Your task to perform on an android device: delete browsing data in the chrome app Image 0: 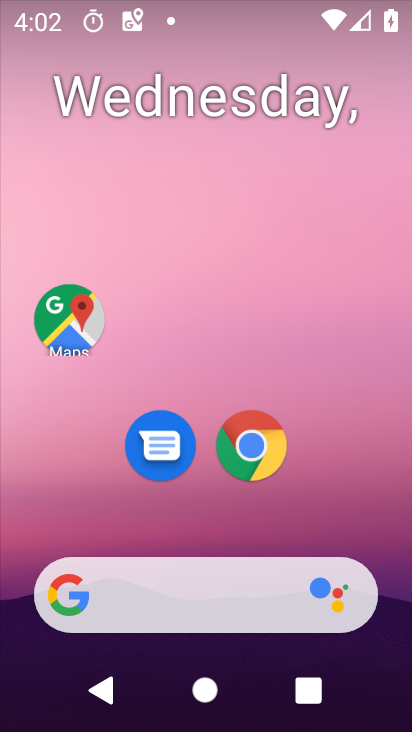
Step 0: click (256, 431)
Your task to perform on an android device: delete browsing data in the chrome app Image 1: 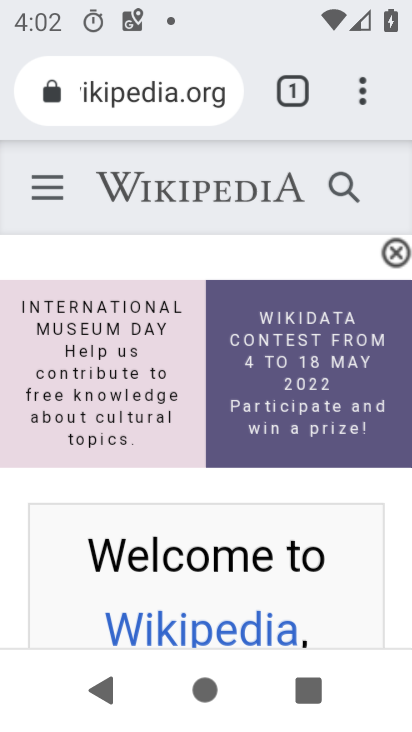
Step 1: click (354, 84)
Your task to perform on an android device: delete browsing data in the chrome app Image 2: 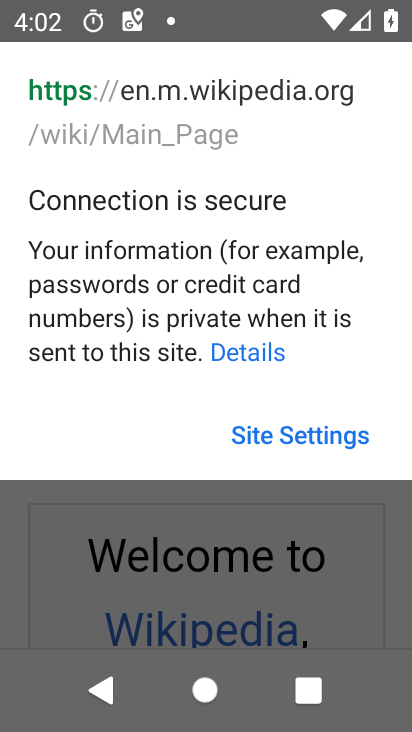
Step 2: click (153, 495)
Your task to perform on an android device: delete browsing data in the chrome app Image 3: 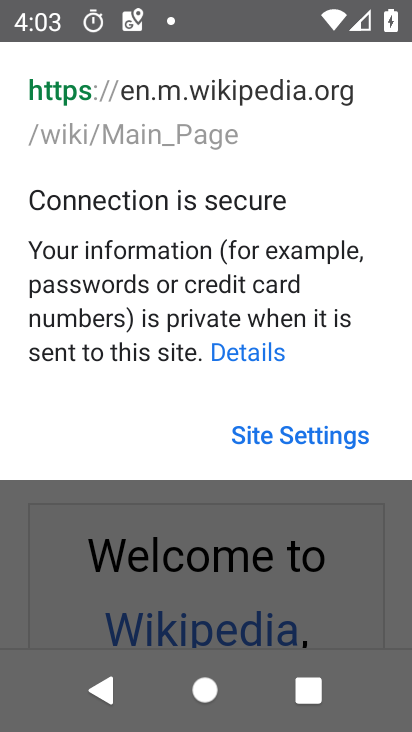
Step 3: click (153, 495)
Your task to perform on an android device: delete browsing data in the chrome app Image 4: 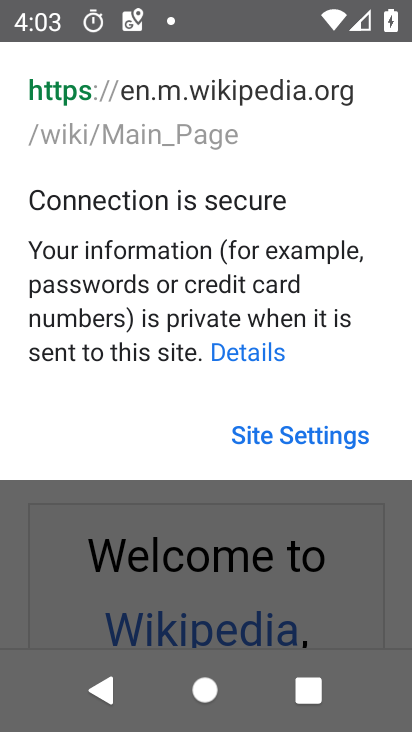
Step 4: click (153, 495)
Your task to perform on an android device: delete browsing data in the chrome app Image 5: 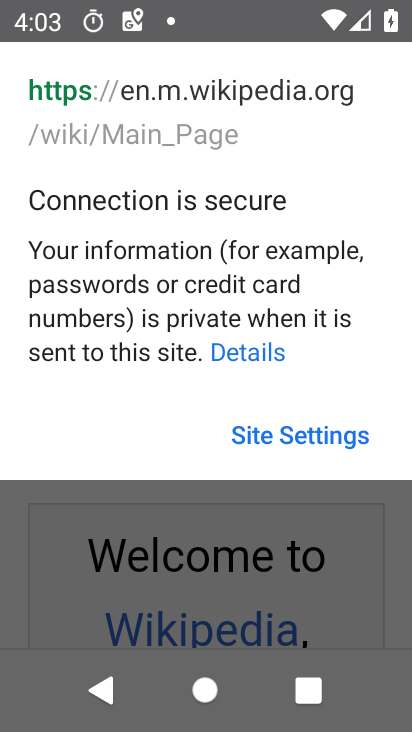
Step 5: click (153, 495)
Your task to perform on an android device: delete browsing data in the chrome app Image 6: 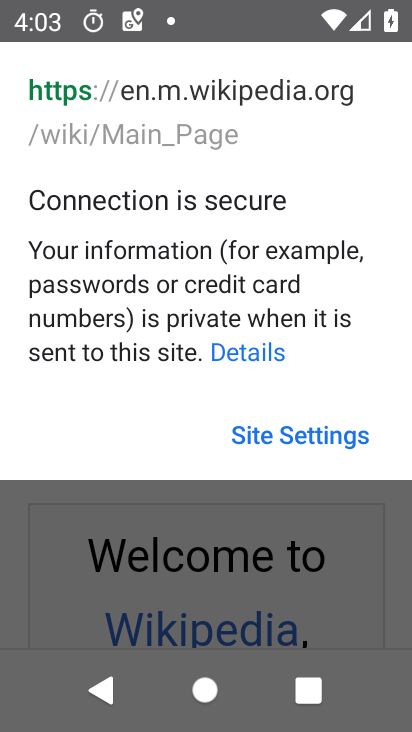
Step 6: click (153, 495)
Your task to perform on an android device: delete browsing data in the chrome app Image 7: 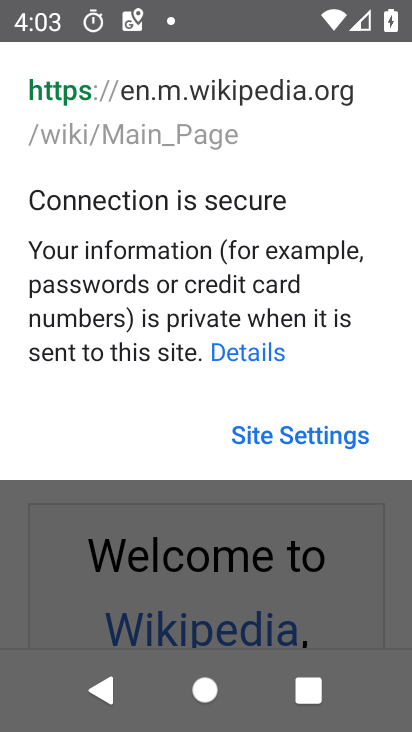
Step 7: click (294, 492)
Your task to perform on an android device: delete browsing data in the chrome app Image 8: 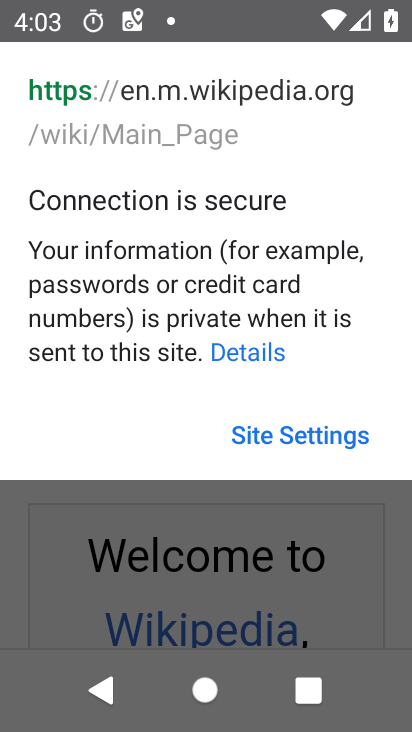
Step 8: click (294, 492)
Your task to perform on an android device: delete browsing data in the chrome app Image 9: 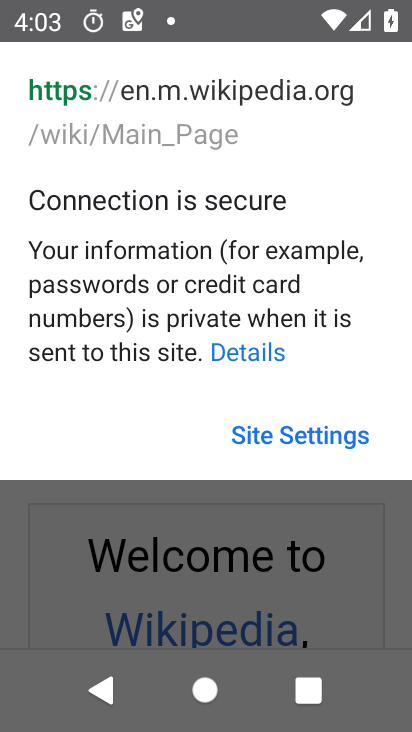
Step 9: click (294, 492)
Your task to perform on an android device: delete browsing data in the chrome app Image 10: 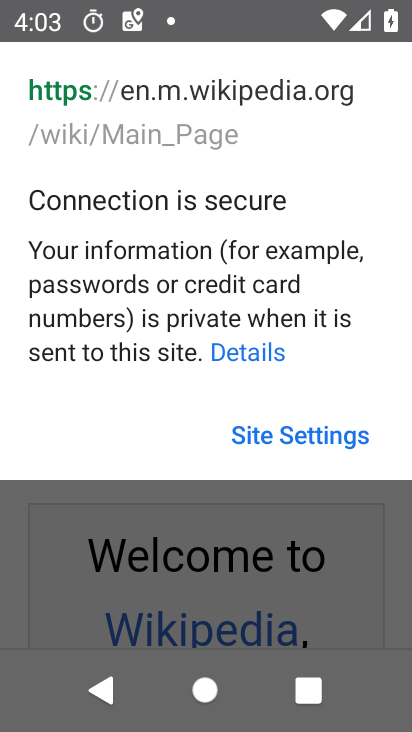
Step 10: click (294, 492)
Your task to perform on an android device: delete browsing data in the chrome app Image 11: 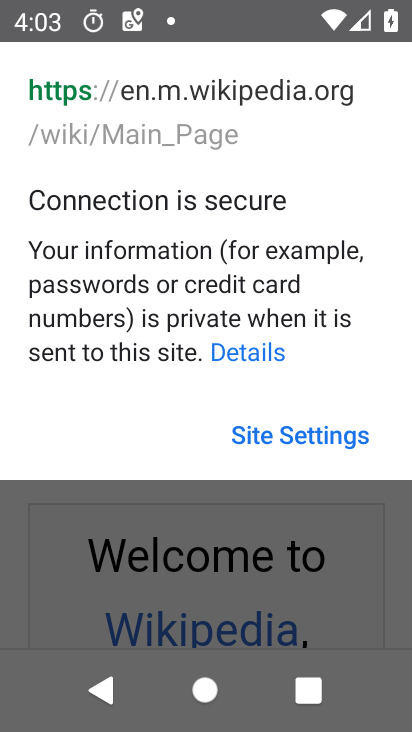
Step 11: click (264, 512)
Your task to perform on an android device: delete browsing data in the chrome app Image 12: 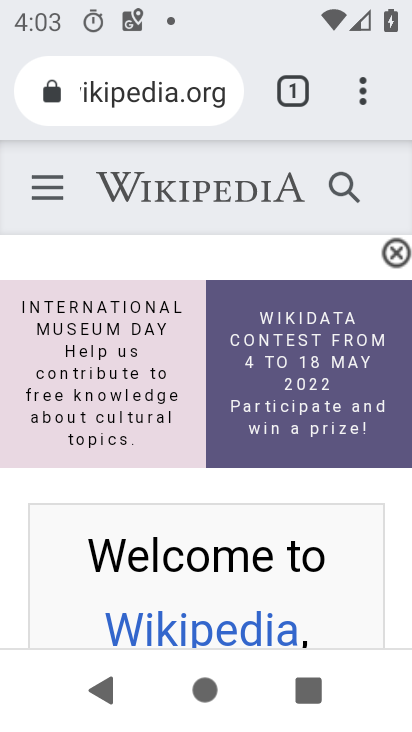
Step 12: click (354, 84)
Your task to perform on an android device: delete browsing data in the chrome app Image 13: 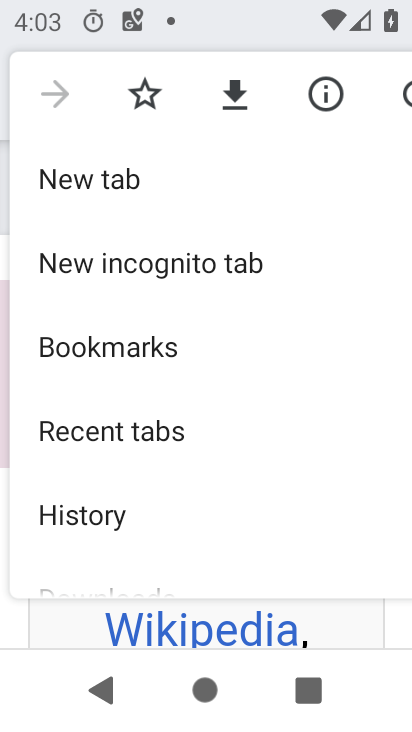
Step 13: drag from (287, 451) to (264, 67)
Your task to perform on an android device: delete browsing data in the chrome app Image 14: 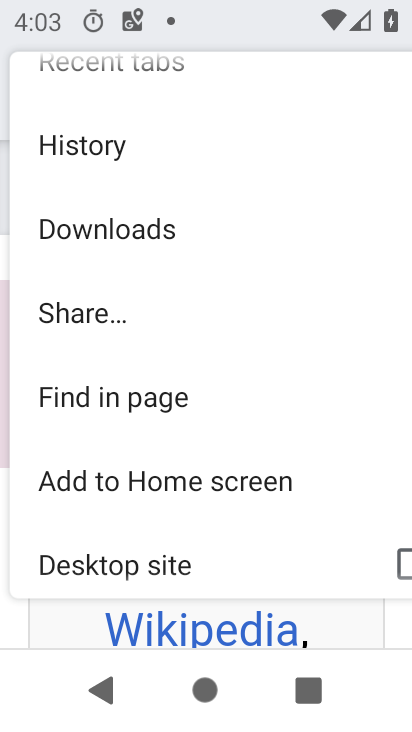
Step 14: drag from (188, 479) to (212, 161)
Your task to perform on an android device: delete browsing data in the chrome app Image 15: 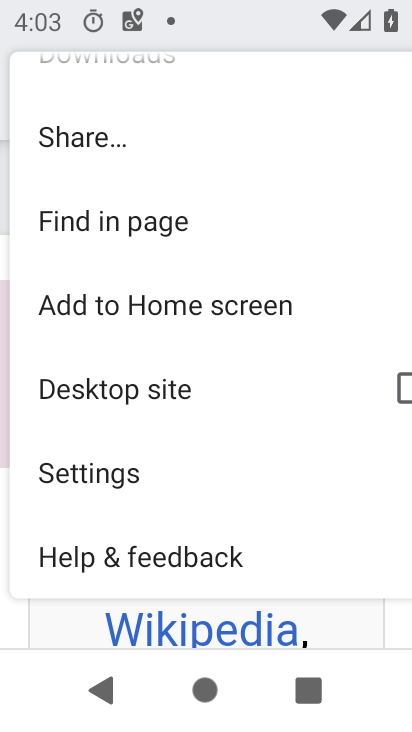
Step 15: click (83, 489)
Your task to perform on an android device: delete browsing data in the chrome app Image 16: 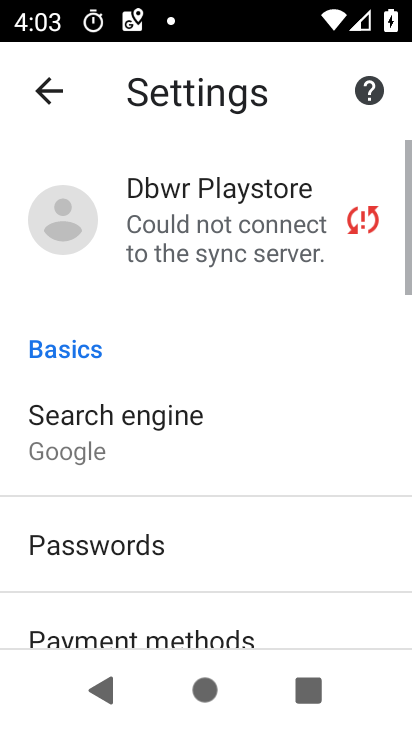
Step 16: drag from (153, 567) to (170, 36)
Your task to perform on an android device: delete browsing data in the chrome app Image 17: 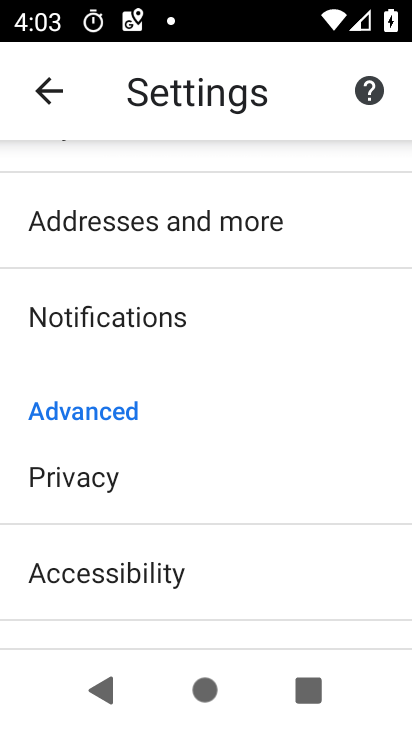
Step 17: click (128, 468)
Your task to perform on an android device: delete browsing data in the chrome app Image 18: 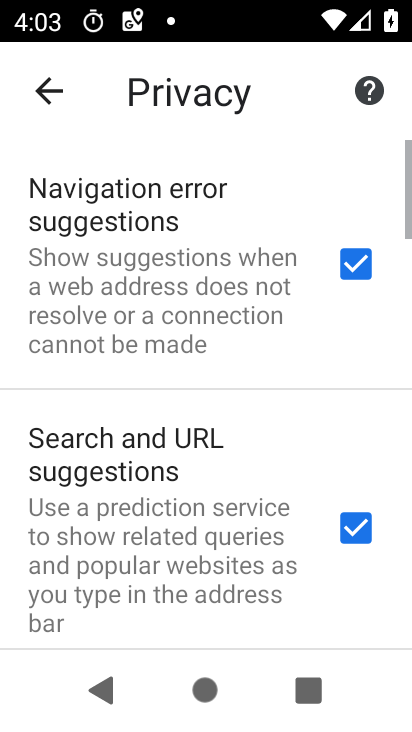
Step 18: drag from (310, 524) to (237, 89)
Your task to perform on an android device: delete browsing data in the chrome app Image 19: 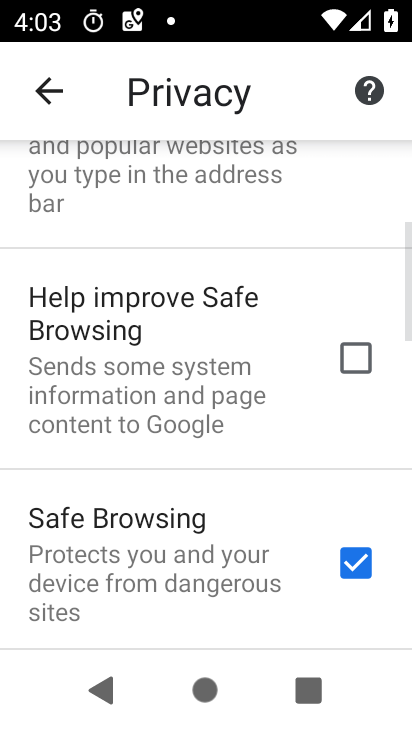
Step 19: drag from (214, 619) to (221, 160)
Your task to perform on an android device: delete browsing data in the chrome app Image 20: 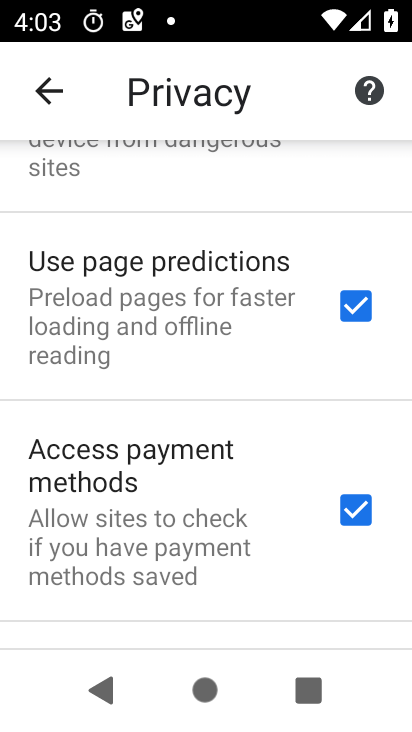
Step 20: drag from (211, 511) to (215, 54)
Your task to perform on an android device: delete browsing data in the chrome app Image 21: 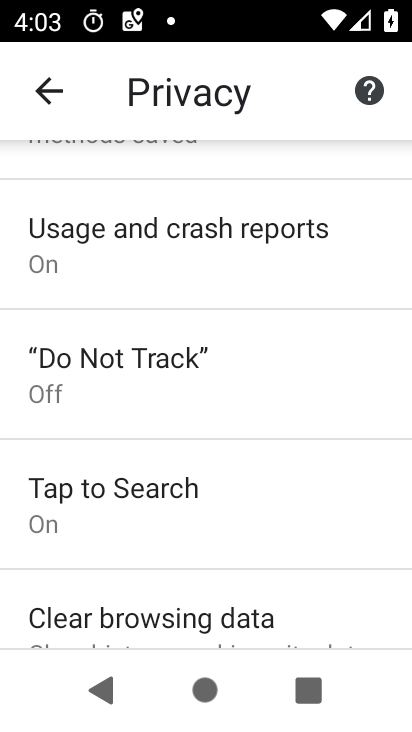
Step 21: drag from (209, 596) to (212, 255)
Your task to perform on an android device: delete browsing data in the chrome app Image 22: 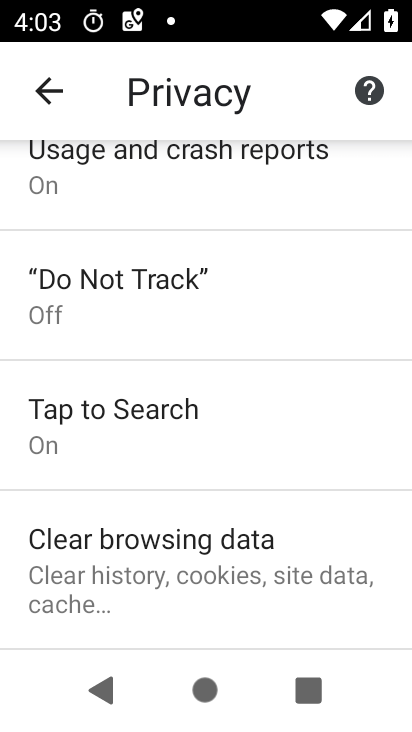
Step 22: click (182, 564)
Your task to perform on an android device: delete browsing data in the chrome app Image 23: 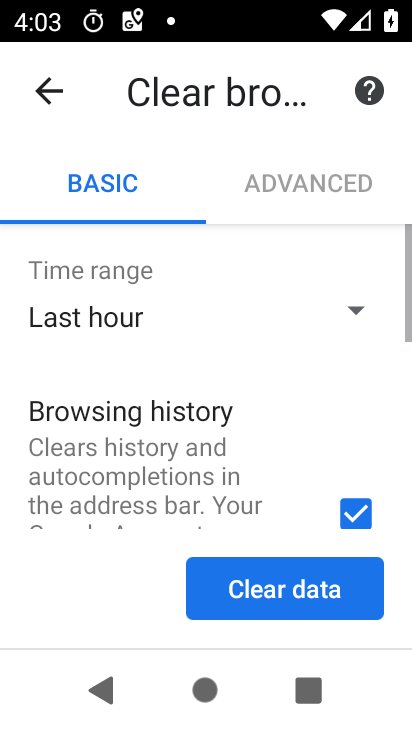
Step 23: drag from (334, 444) to (333, 206)
Your task to perform on an android device: delete browsing data in the chrome app Image 24: 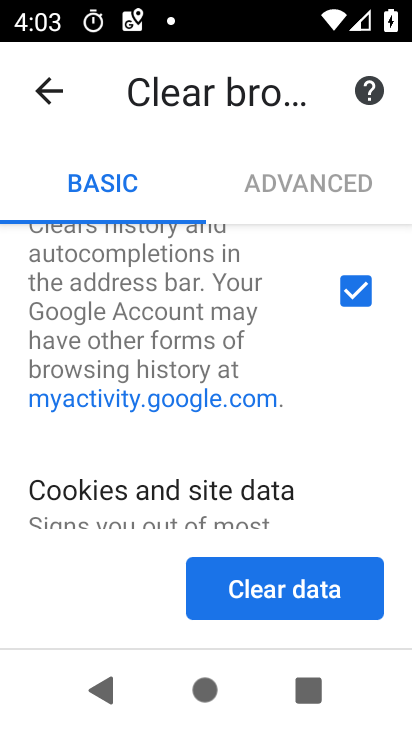
Step 24: click (349, 301)
Your task to perform on an android device: delete browsing data in the chrome app Image 25: 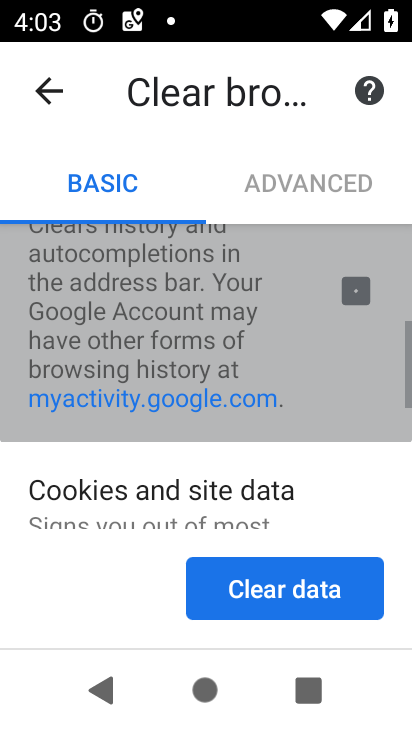
Step 25: drag from (325, 429) to (314, 241)
Your task to perform on an android device: delete browsing data in the chrome app Image 26: 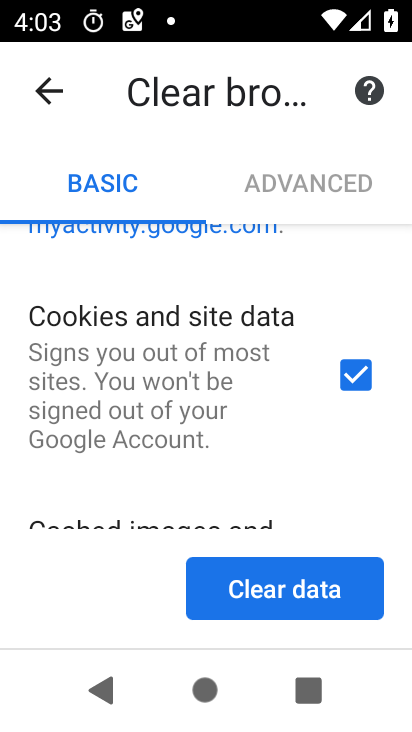
Step 26: click (364, 365)
Your task to perform on an android device: delete browsing data in the chrome app Image 27: 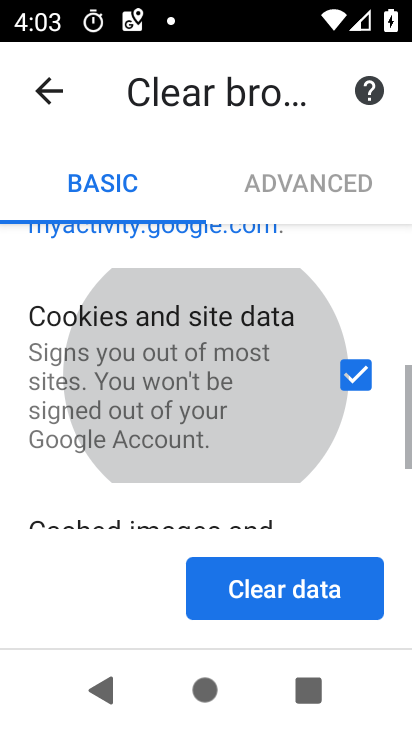
Step 27: drag from (286, 397) to (317, 580)
Your task to perform on an android device: delete browsing data in the chrome app Image 28: 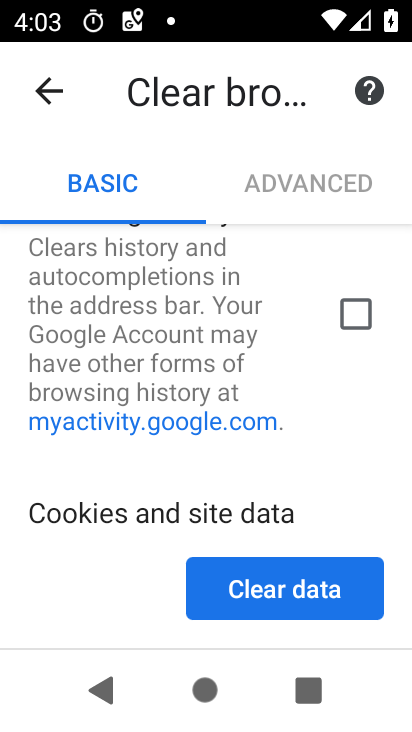
Step 28: click (346, 332)
Your task to perform on an android device: delete browsing data in the chrome app Image 29: 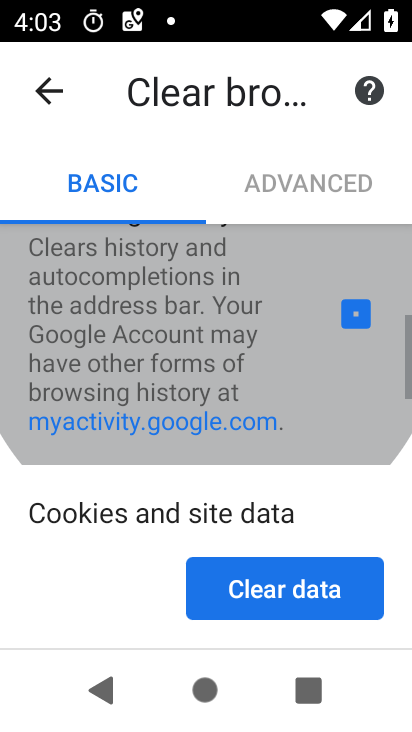
Step 29: drag from (275, 470) to (287, 270)
Your task to perform on an android device: delete browsing data in the chrome app Image 30: 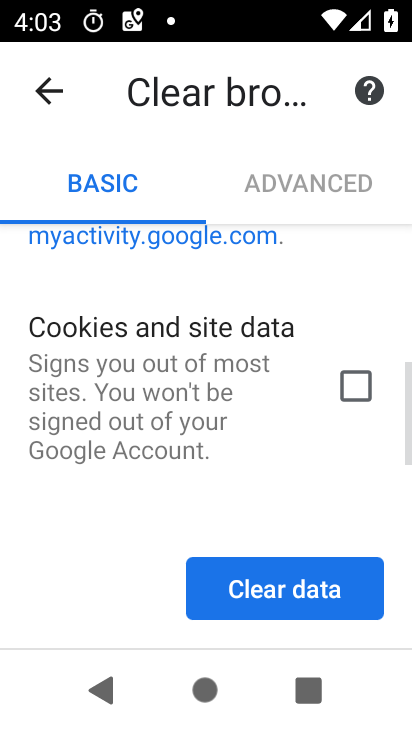
Step 30: click (349, 503)
Your task to perform on an android device: delete browsing data in the chrome app Image 31: 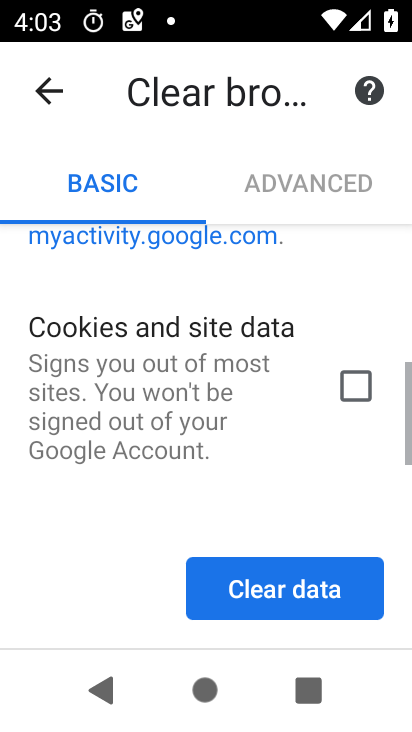
Step 31: drag from (333, 467) to (302, 248)
Your task to perform on an android device: delete browsing data in the chrome app Image 32: 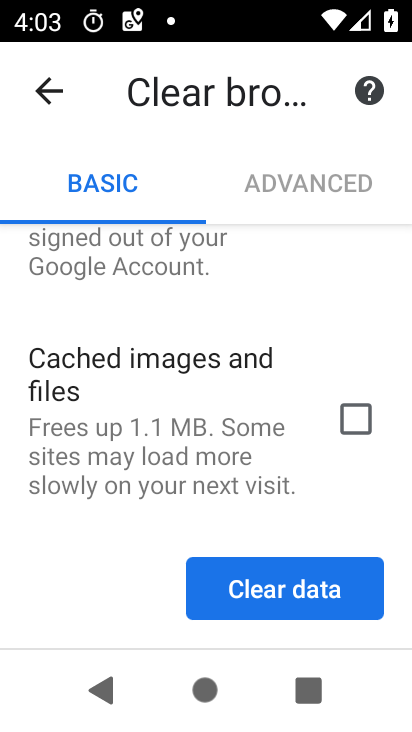
Step 32: drag from (259, 333) to (309, 248)
Your task to perform on an android device: delete browsing data in the chrome app Image 33: 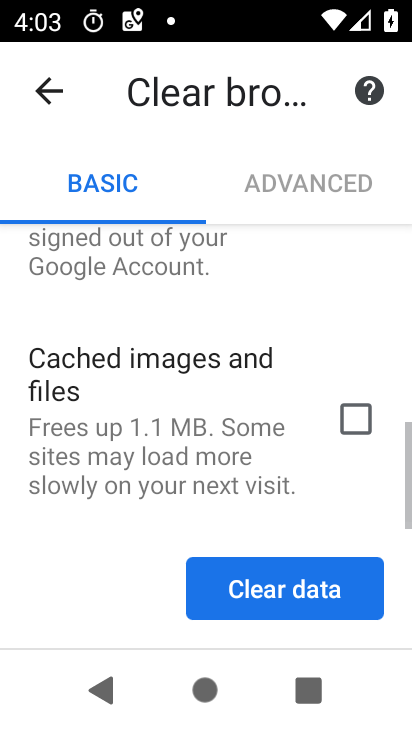
Step 33: click (260, 580)
Your task to perform on an android device: delete browsing data in the chrome app Image 34: 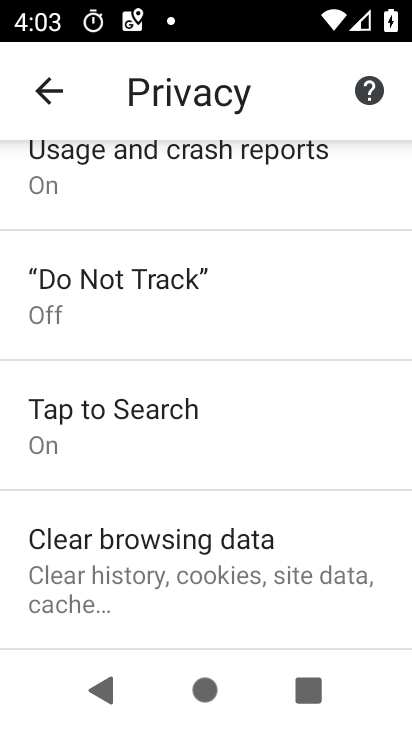
Step 34: task complete